Your task to perform on an android device: Go to ESPN.com Image 0: 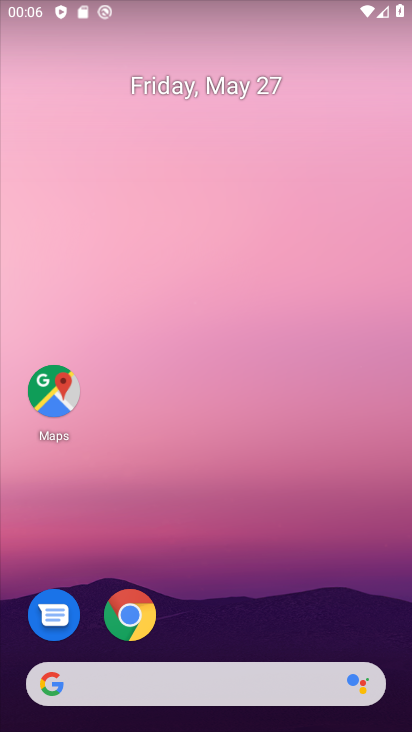
Step 0: drag from (368, 628) to (361, 277)
Your task to perform on an android device: Go to ESPN.com Image 1: 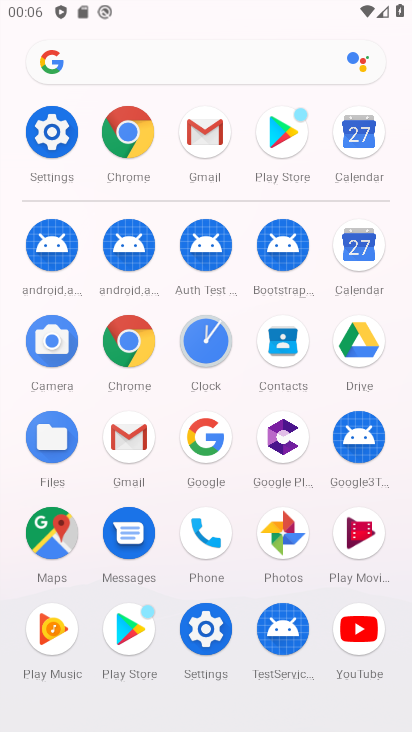
Step 1: click (119, 364)
Your task to perform on an android device: Go to ESPN.com Image 2: 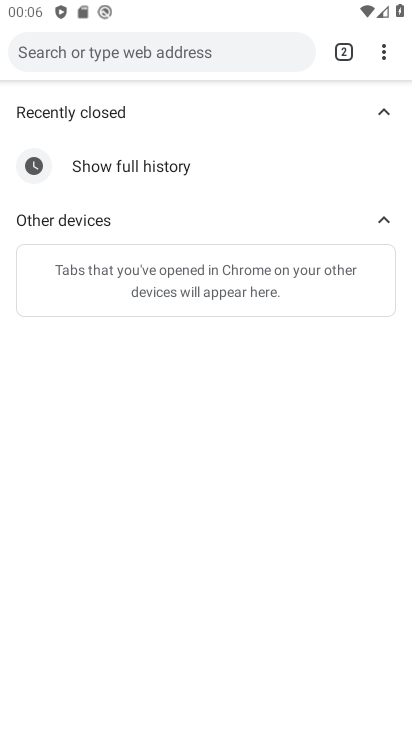
Step 2: click (247, 53)
Your task to perform on an android device: Go to ESPN.com Image 3: 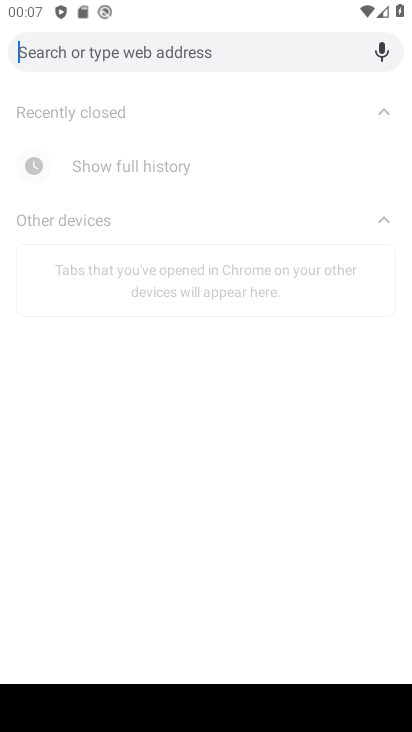
Step 3: type "espn.com"
Your task to perform on an android device: Go to ESPN.com Image 4: 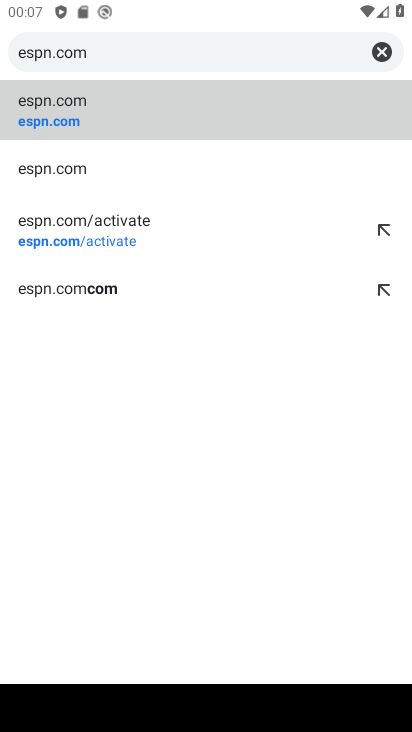
Step 4: click (106, 116)
Your task to perform on an android device: Go to ESPN.com Image 5: 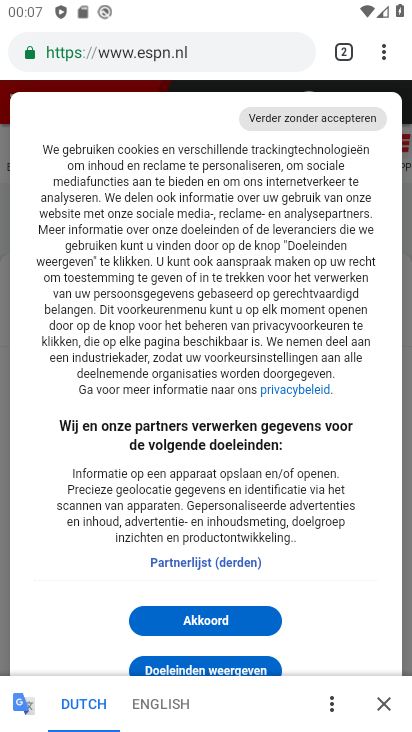
Step 5: task complete